Your task to perform on an android device: Search for Mexican restaurants on Maps Image 0: 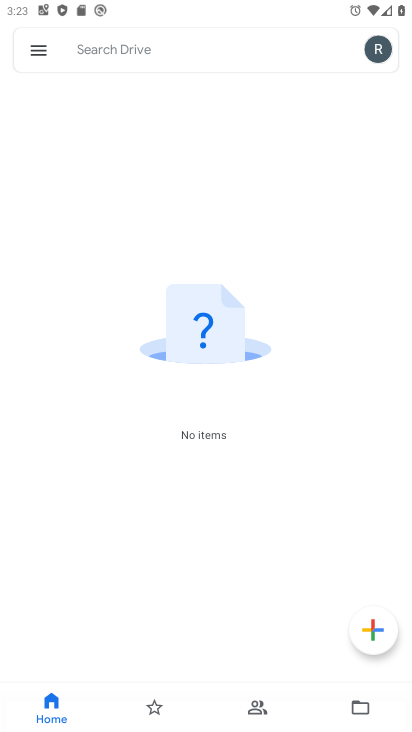
Step 0: press home button
Your task to perform on an android device: Search for Mexican restaurants on Maps Image 1: 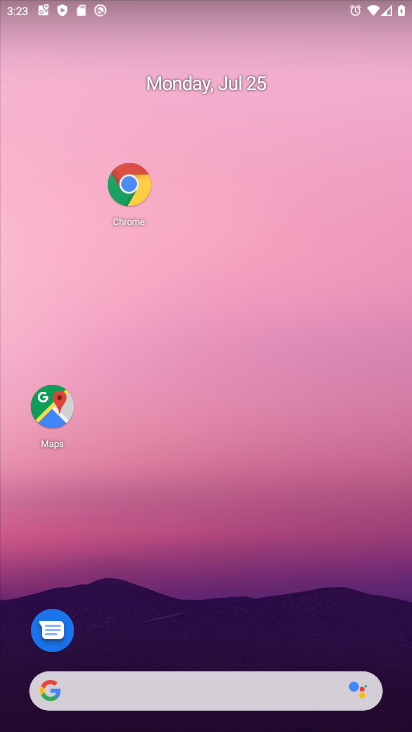
Step 1: click (28, 403)
Your task to perform on an android device: Search for Mexican restaurants on Maps Image 2: 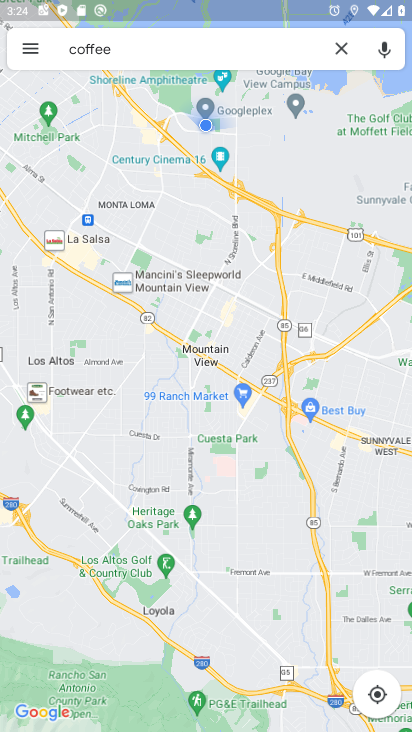
Step 2: click (331, 46)
Your task to perform on an android device: Search for Mexican restaurants on Maps Image 3: 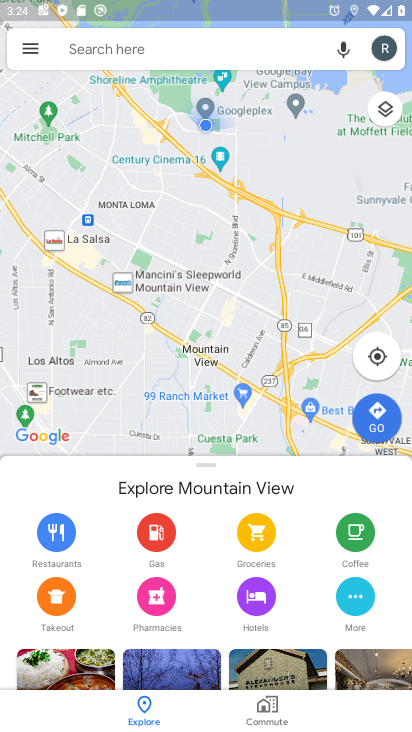
Step 3: click (266, 50)
Your task to perform on an android device: Search for Mexican restaurants on Maps Image 4: 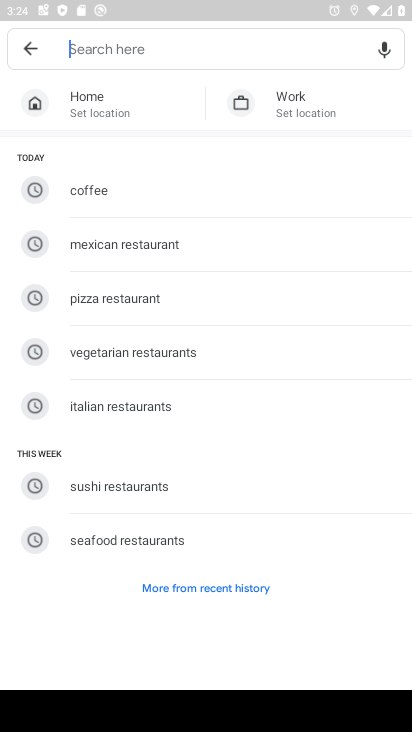
Step 4: click (209, 247)
Your task to perform on an android device: Search for Mexican restaurants on Maps Image 5: 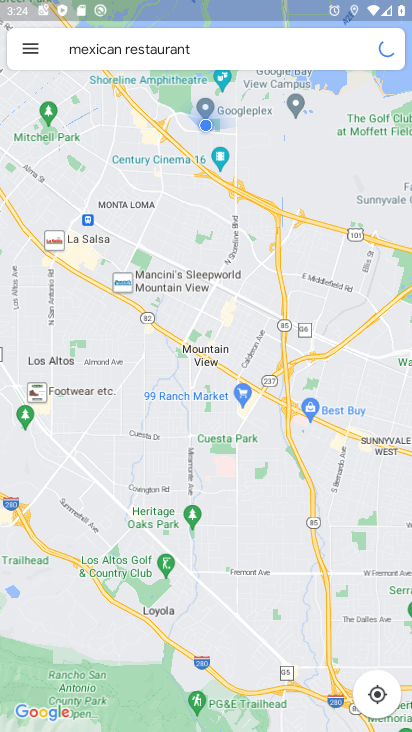
Step 5: task complete